Your task to perform on an android device: install app "Paramount+ | Peak Streaming" Image 0: 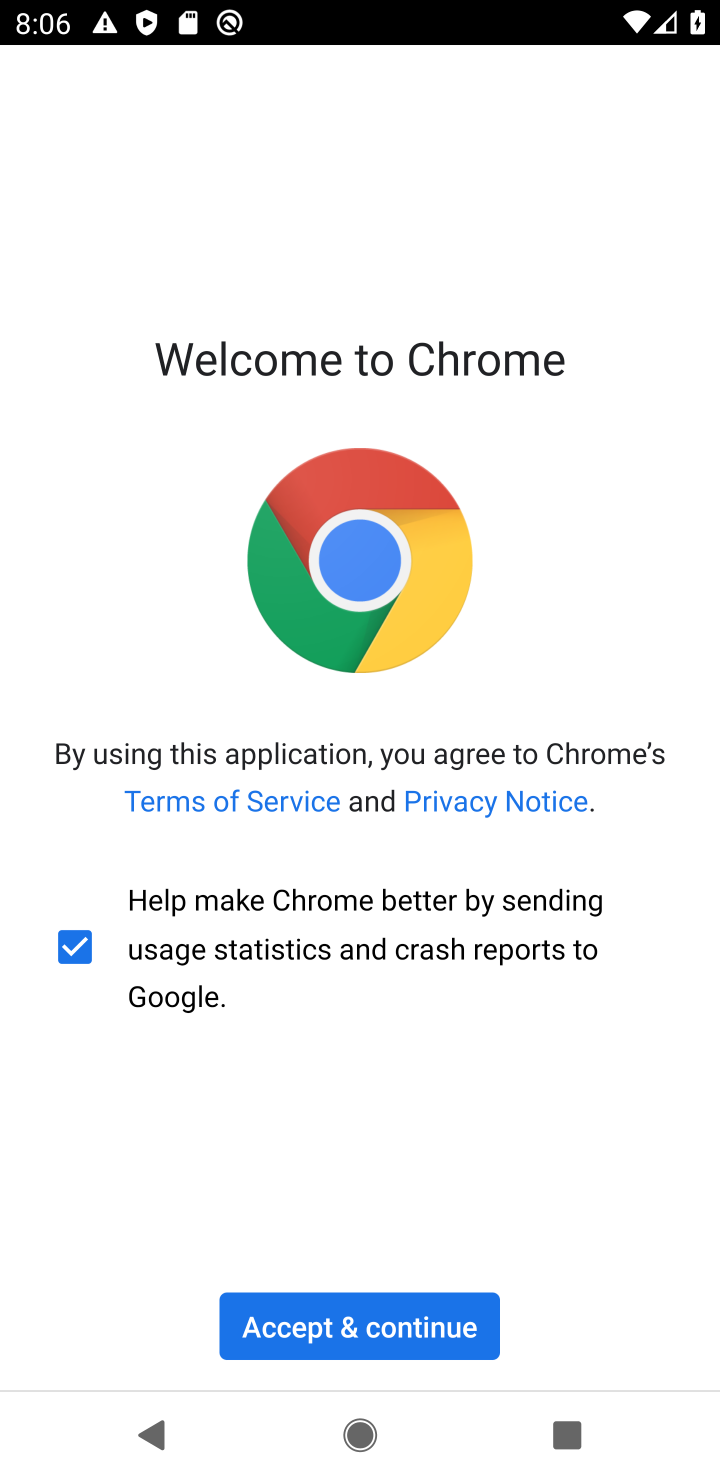
Step 0: press home button
Your task to perform on an android device: install app "Paramount+ | Peak Streaming" Image 1: 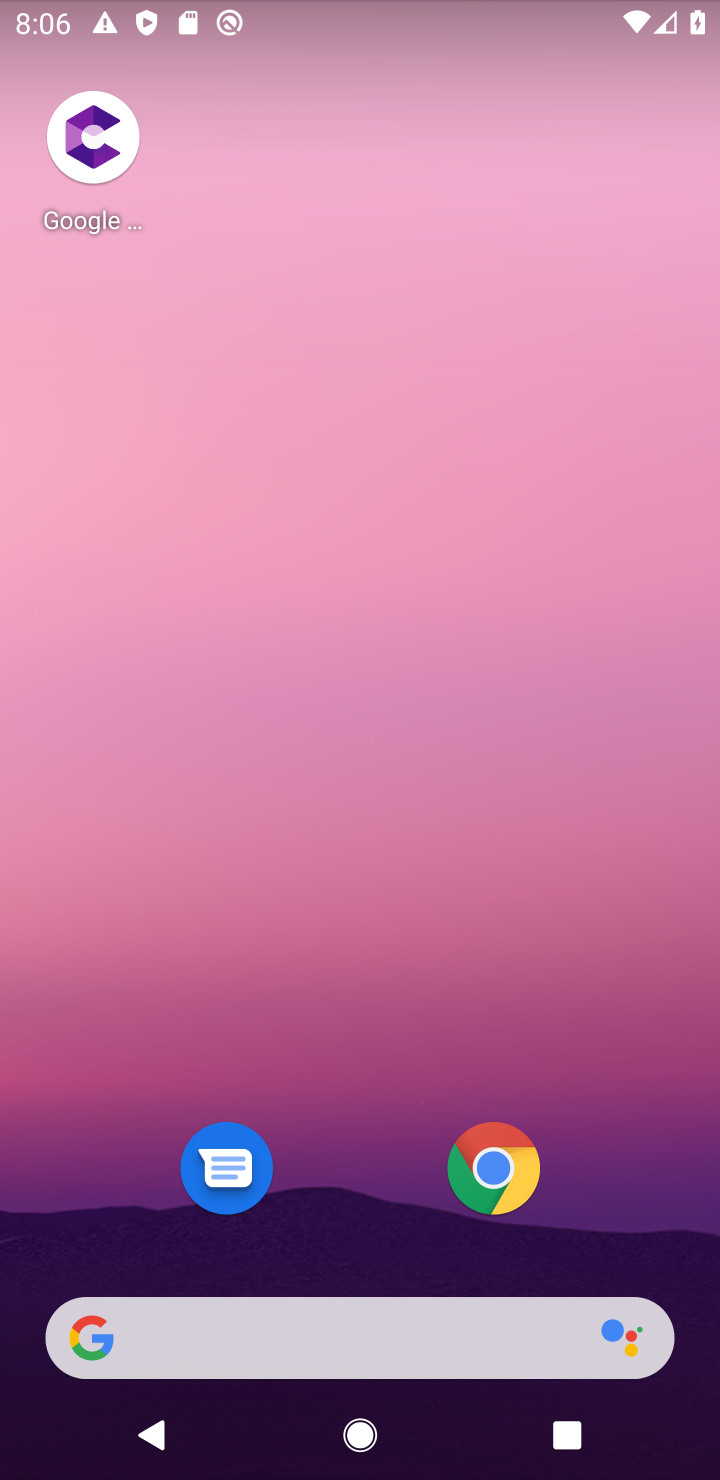
Step 1: drag from (328, 1181) to (715, 209)
Your task to perform on an android device: install app "Paramount+ | Peak Streaming" Image 2: 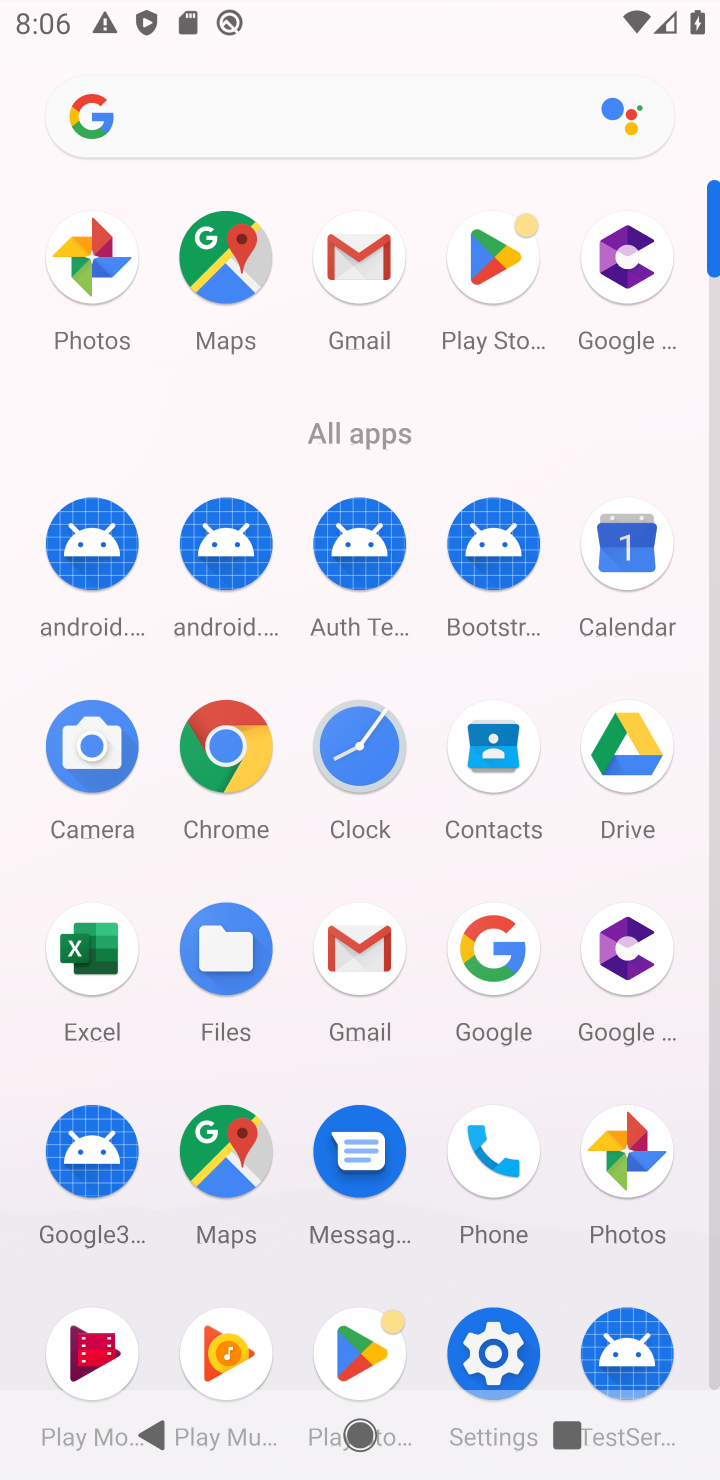
Step 2: click (487, 254)
Your task to perform on an android device: install app "Paramount+ | Peak Streaming" Image 3: 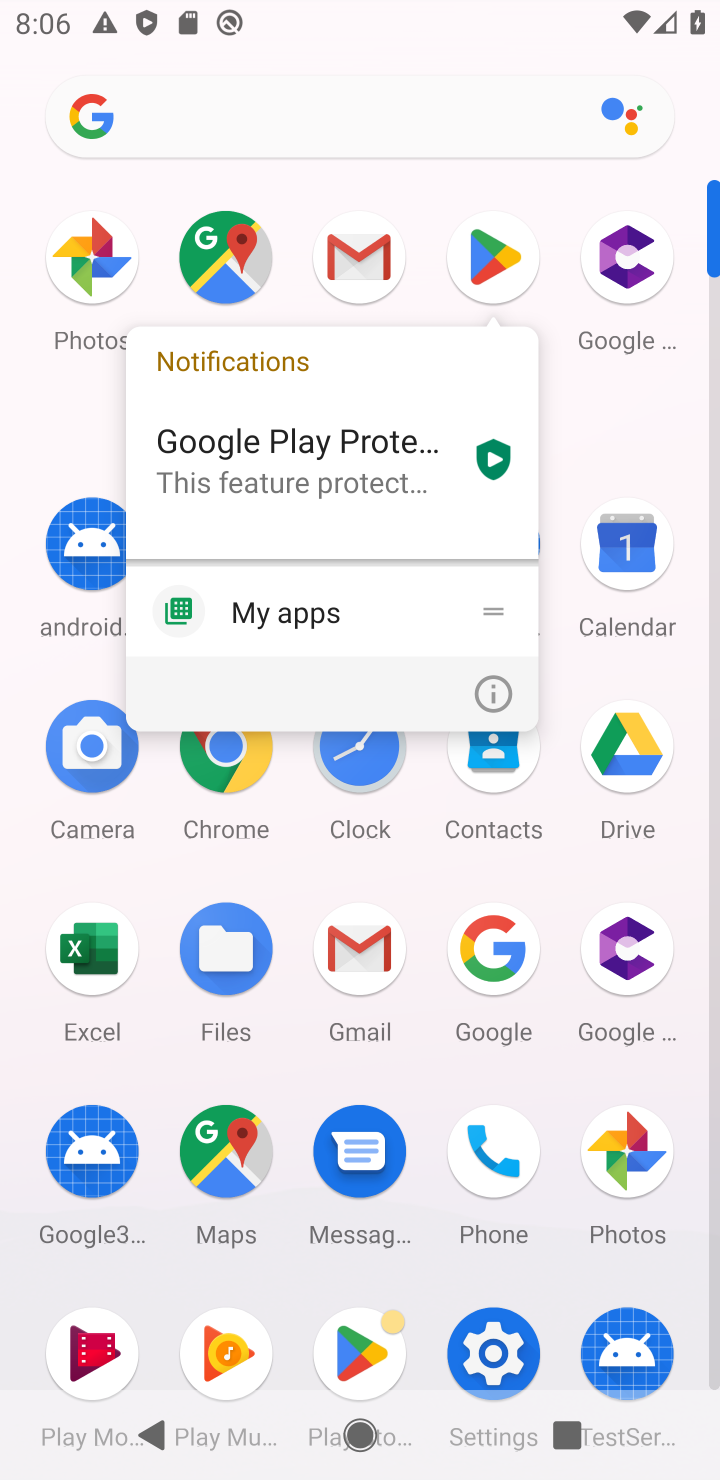
Step 3: click (484, 248)
Your task to perform on an android device: install app "Paramount+ | Peak Streaming" Image 4: 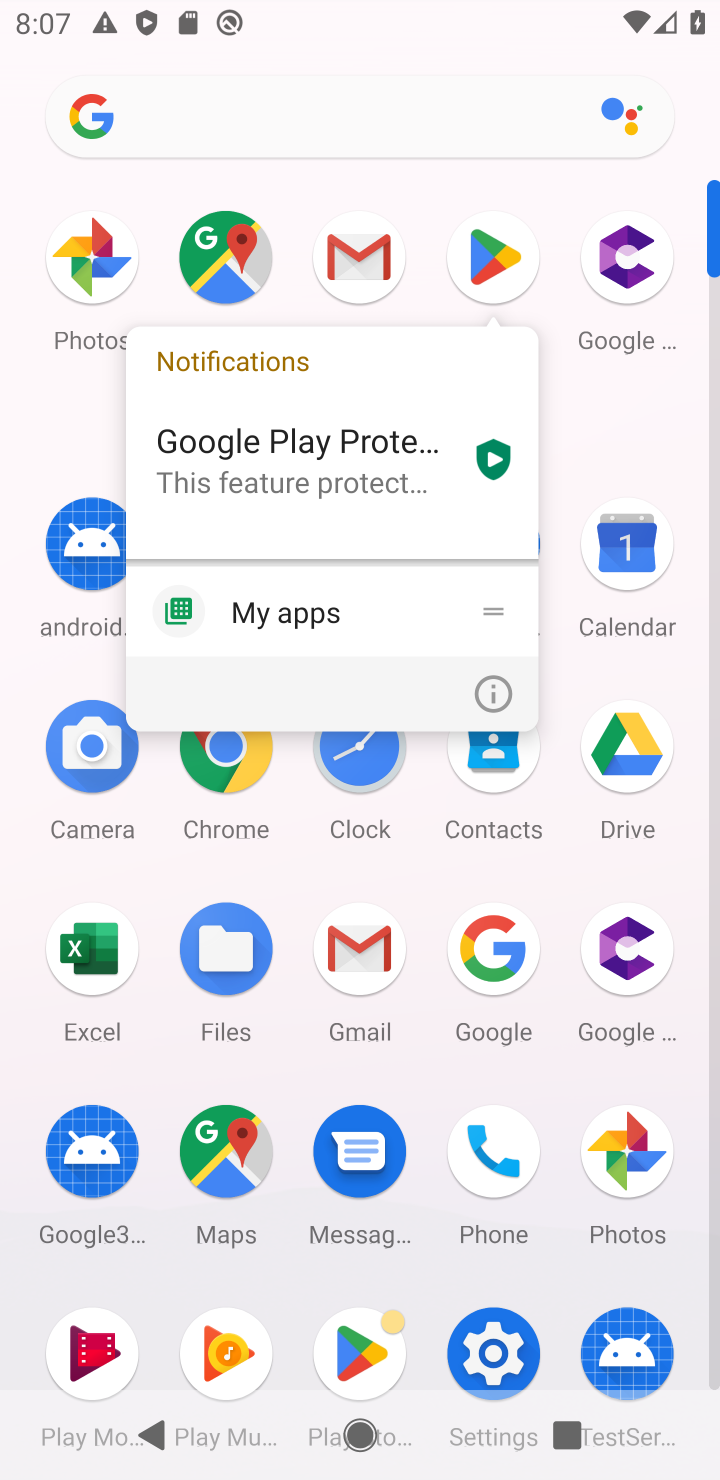
Step 4: click (448, 240)
Your task to perform on an android device: install app "Paramount+ | Peak Streaming" Image 5: 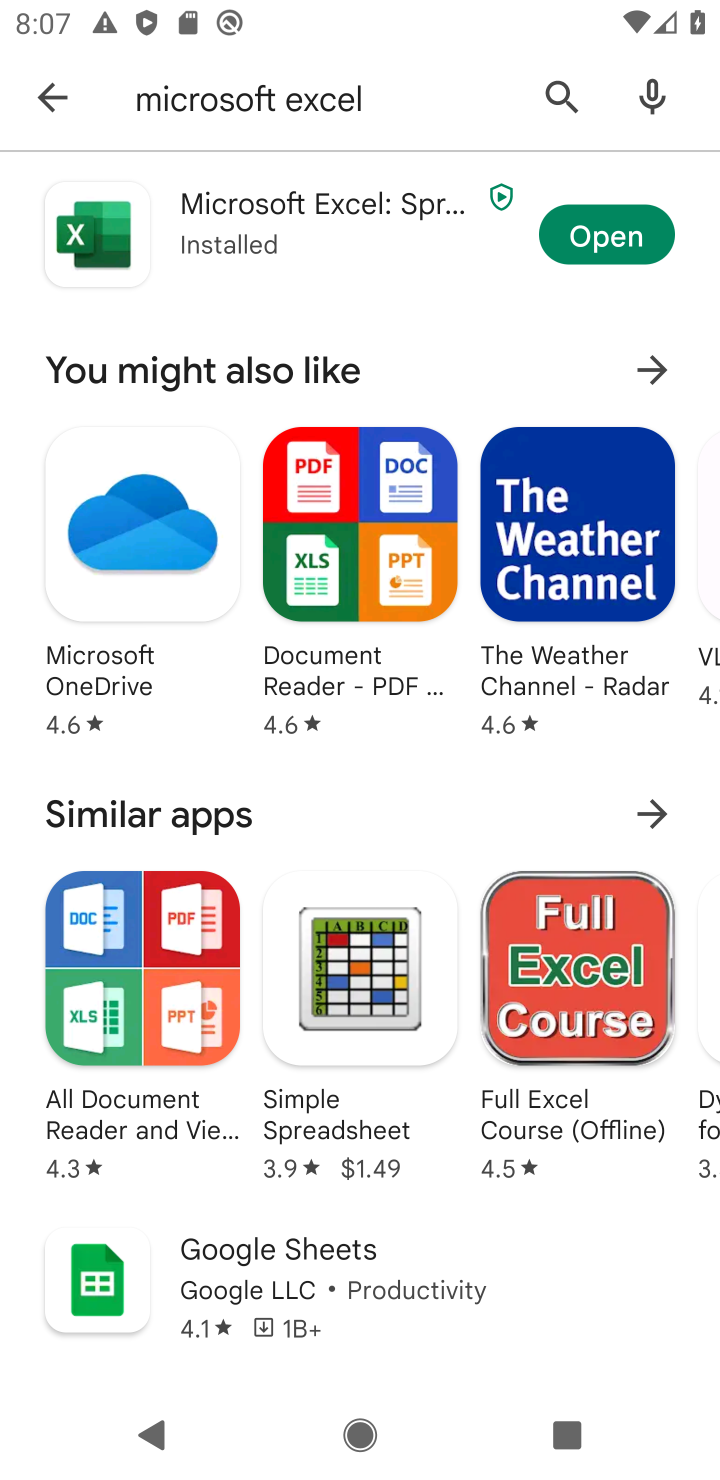
Step 5: press back button
Your task to perform on an android device: install app "Paramount+ | Peak Streaming" Image 6: 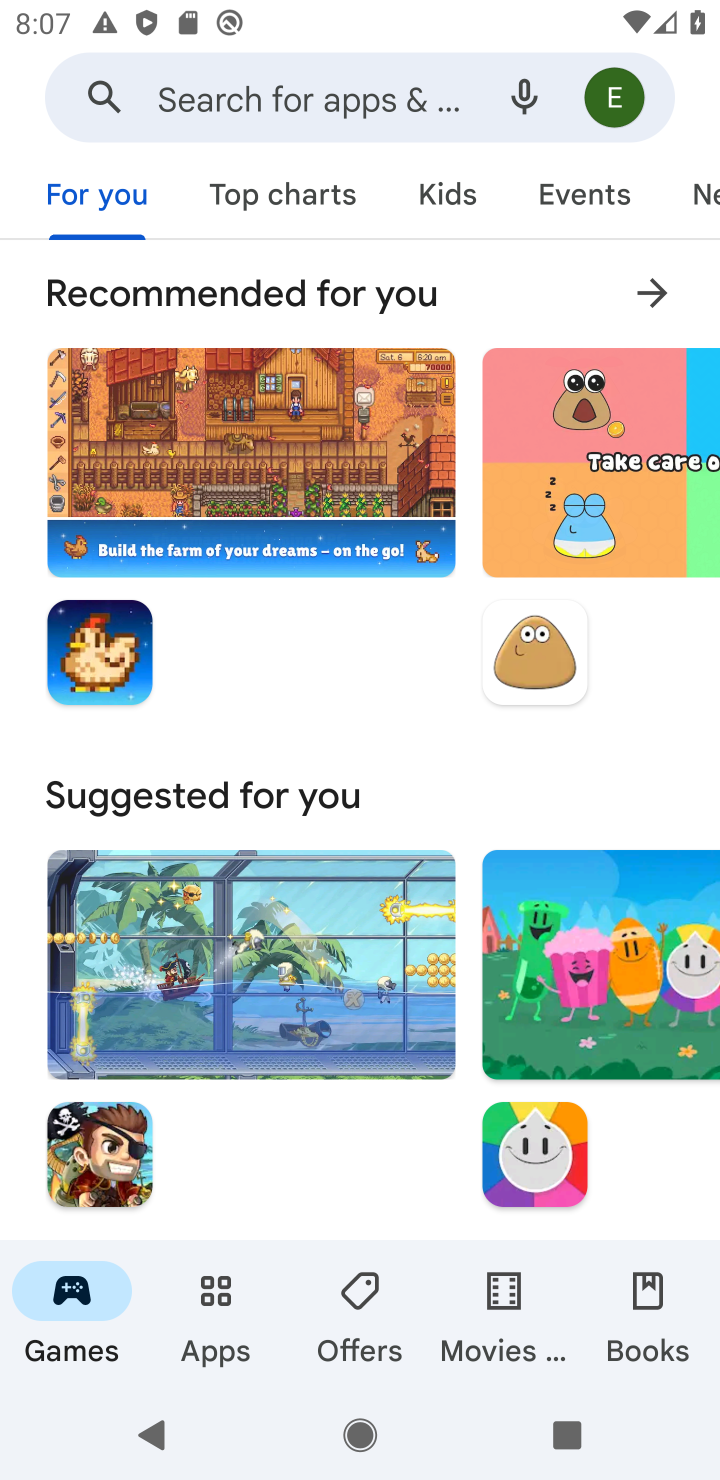
Step 6: click (345, 100)
Your task to perform on an android device: install app "Paramount+ | Peak Streaming" Image 7: 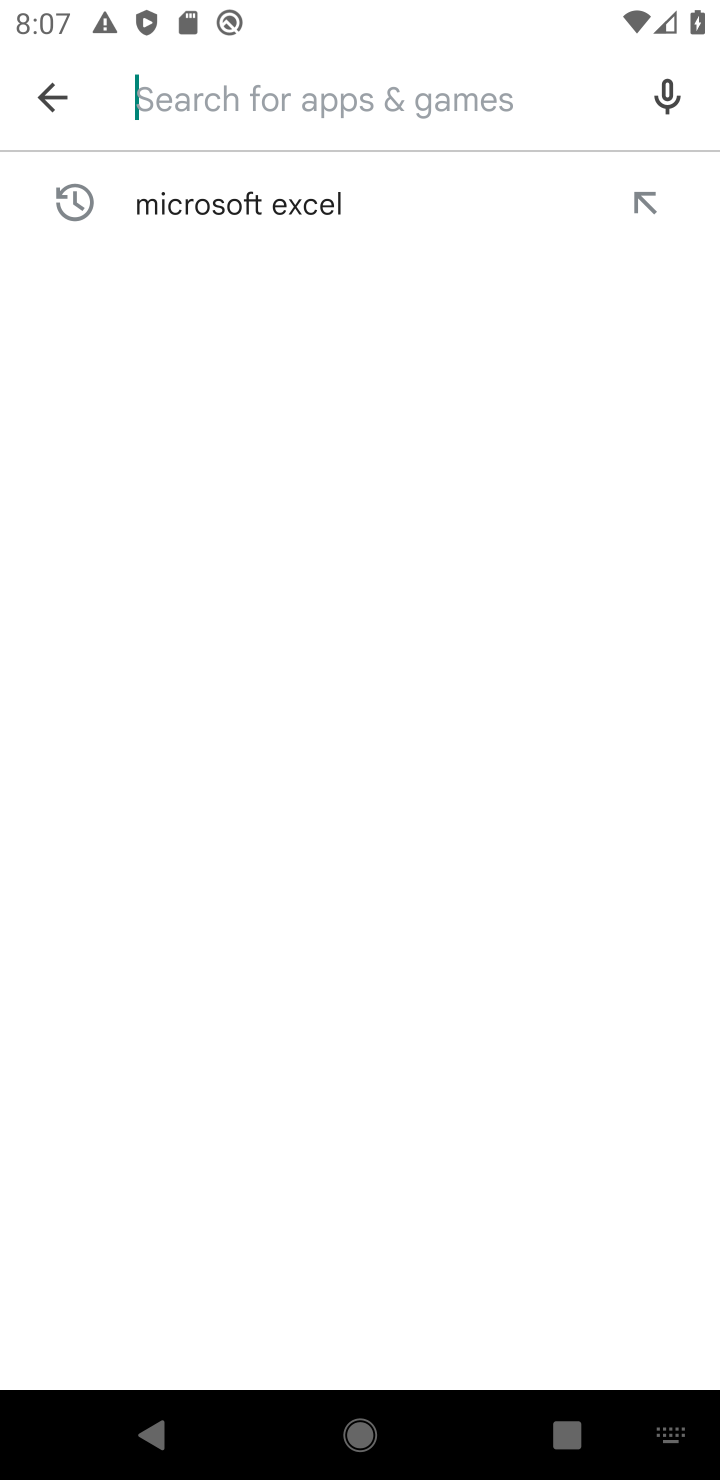
Step 7: type "Paramount+ | Peak Streaming"
Your task to perform on an android device: install app "Paramount+ | Peak Streaming" Image 8: 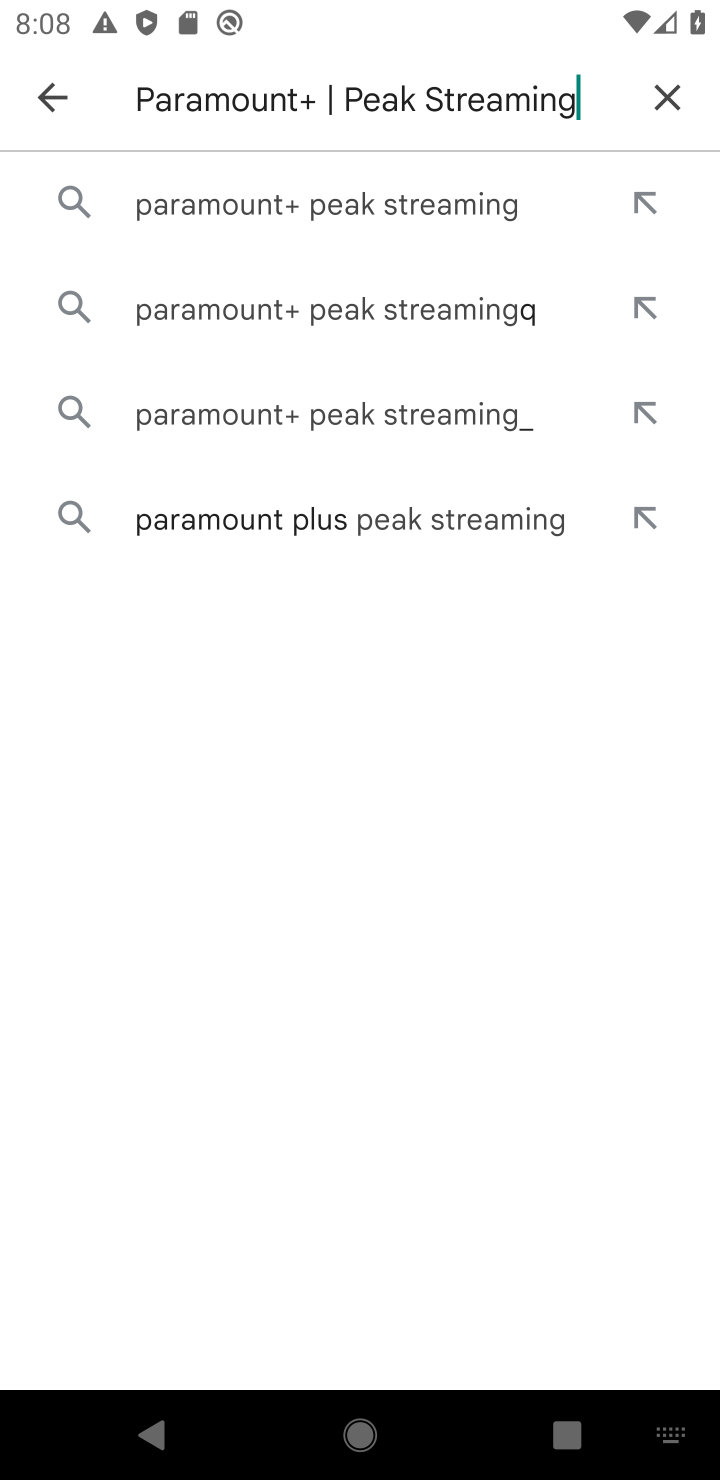
Step 8: click (459, 170)
Your task to perform on an android device: install app "Paramount+ | Peak Streaming" Image 9: 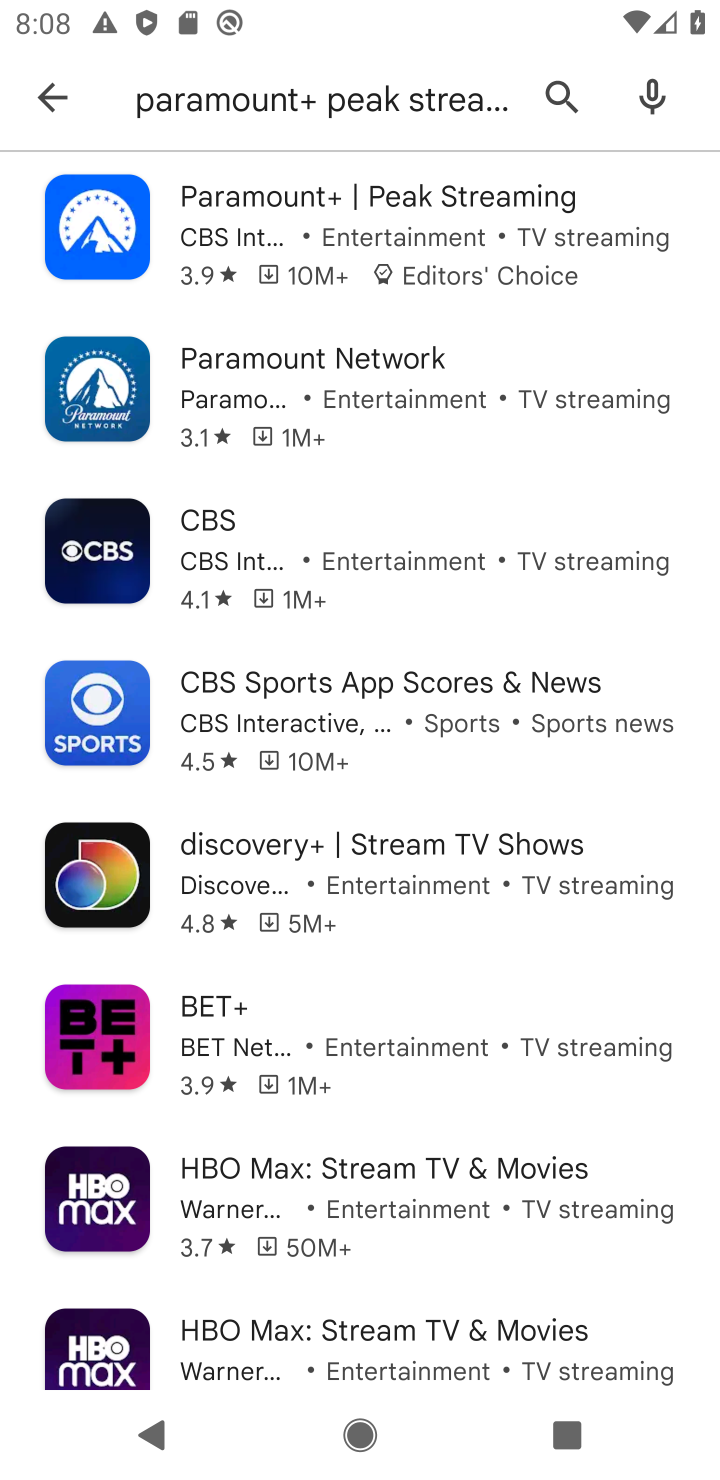
Step 9: click (461, 238)
Your task to perform on an android device: install app "Paramount+ | Peak Streaming" Image 10: 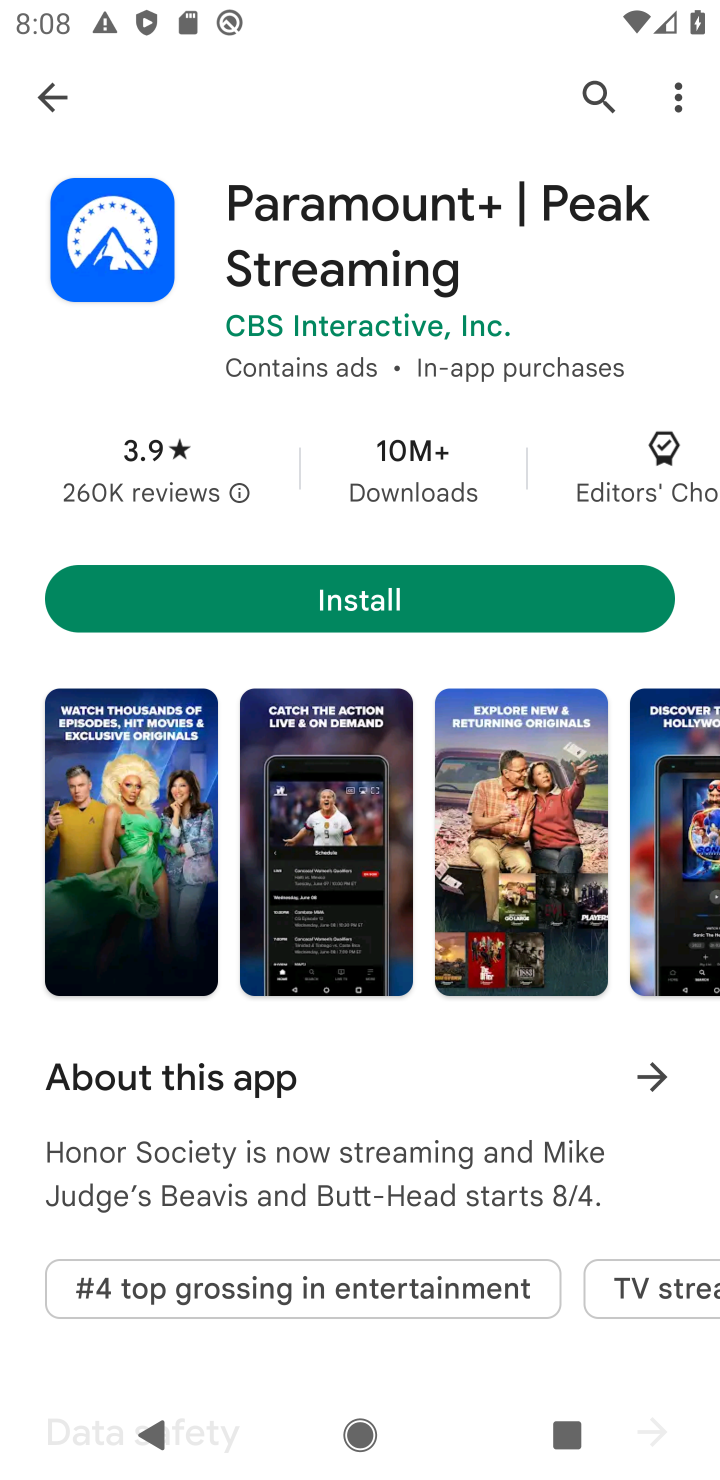
Step 10: click (450, 612)
Your task to perform on an android device: install app "Paramount+ | Peak Streaming" Image 11: 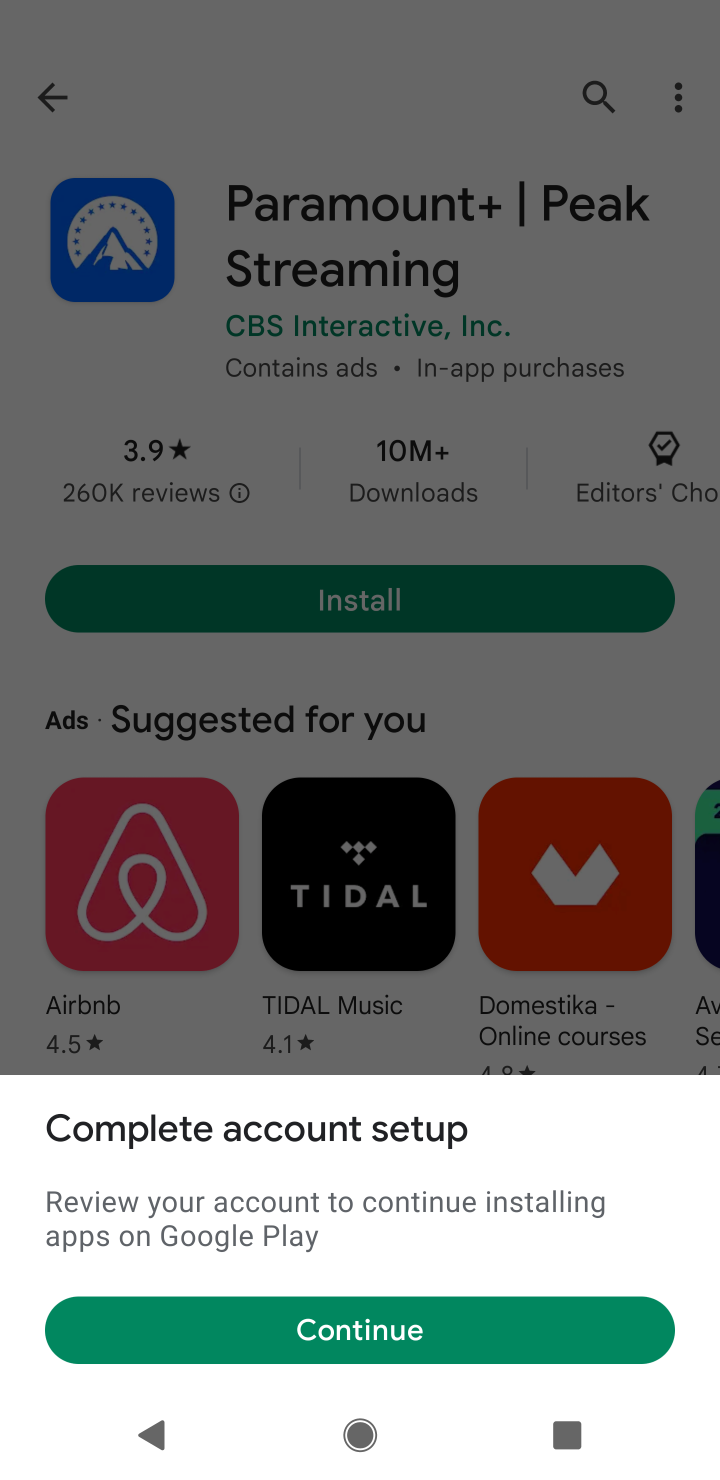
Step 11: click (367, 1330)
Your task to perform on an android device: install app "Paramount+ | Peak Streaming" Image 12: 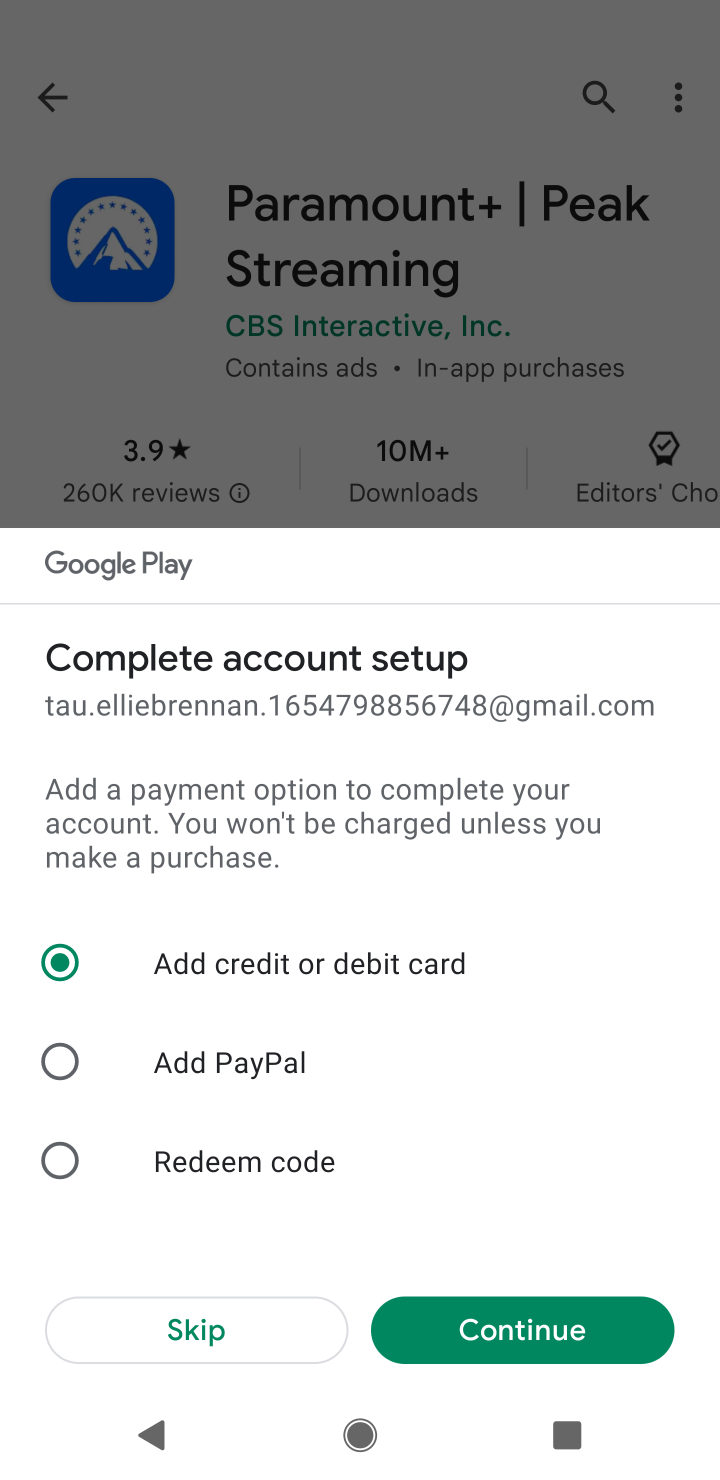
Step 12: click (135, 1315)
Your task to perform on an android device: install app "Paramount+ | Peak Streaming" Image 13: 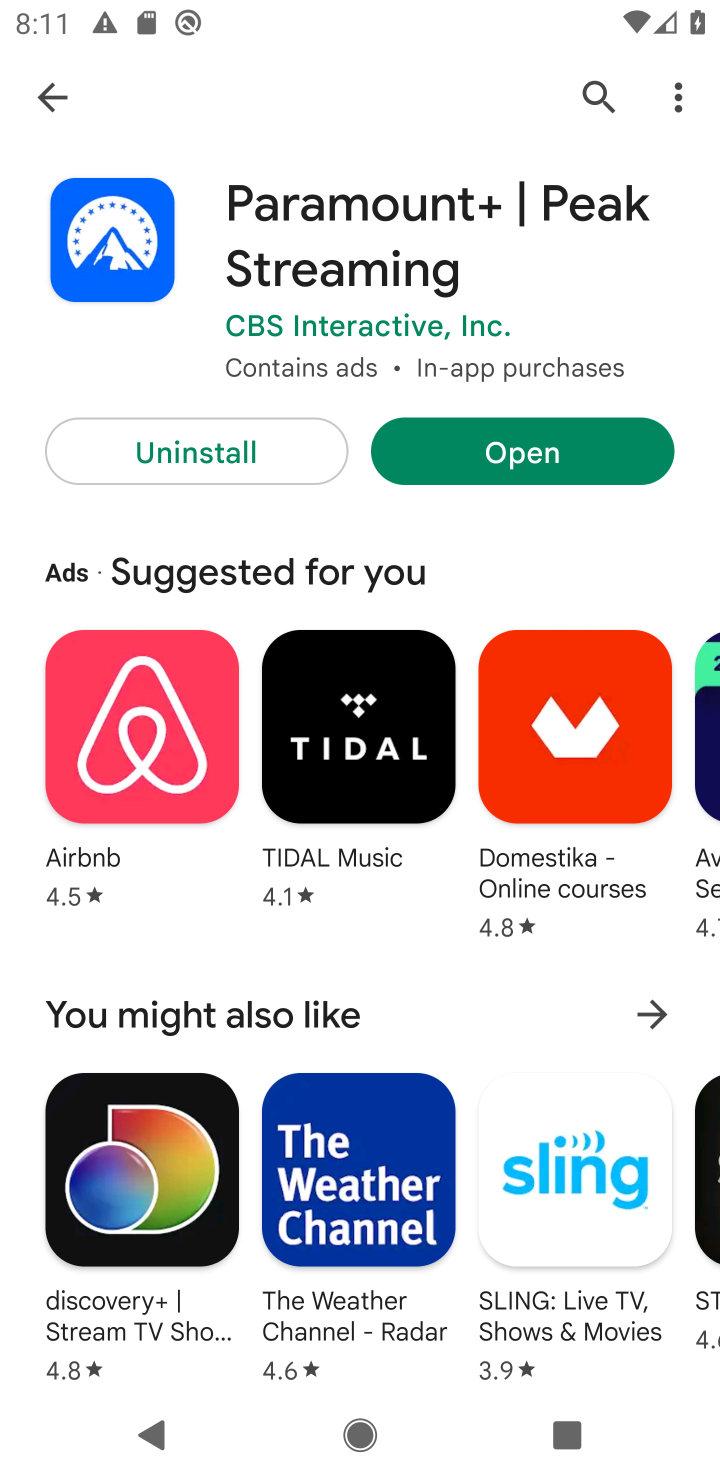
Step 13: task complete